Your task to perform on an android device: Open Google Chrome and click the shortcut for Amazon.com Image 0: 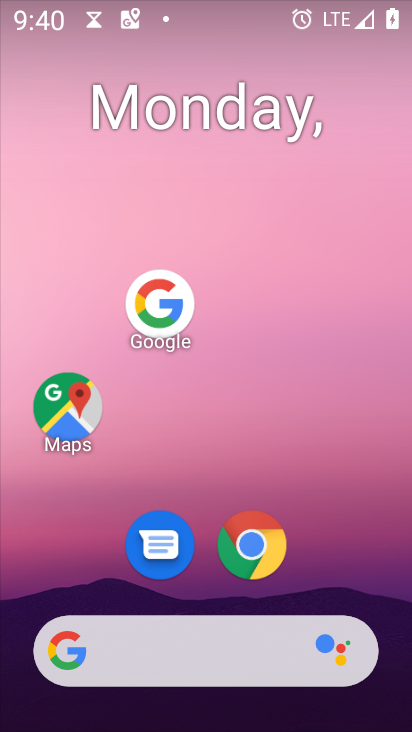
Step 0: press home button
Your task to perform on an android device: Open Google Chrome and click the shortcut for Amazon.com Image 1: 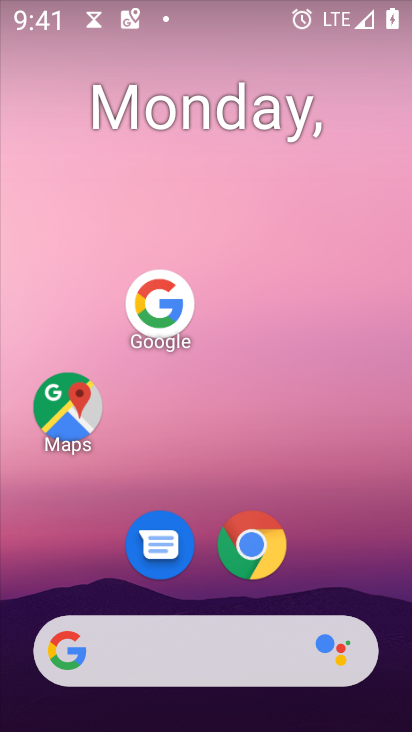
Step 1: click (261, 535)
Your task to perform on an android device: Open Google Chrome and click the shortcut for Amazon.com Image 2: 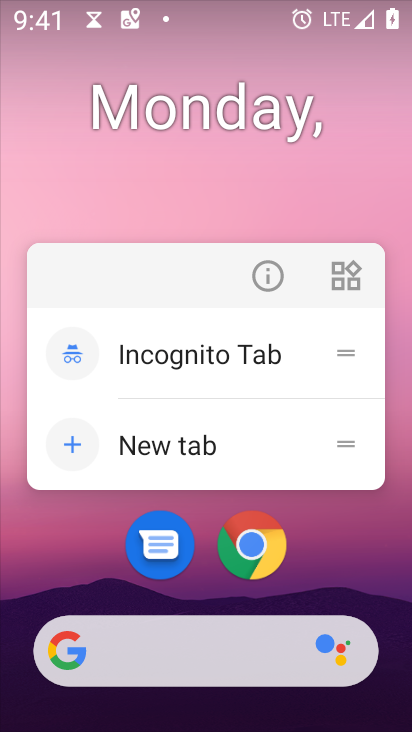
Step 2: click (249, 554)
Your task to perform on an android device: Open Google Chrome and click the shortcut for Amazon.com Image 3: 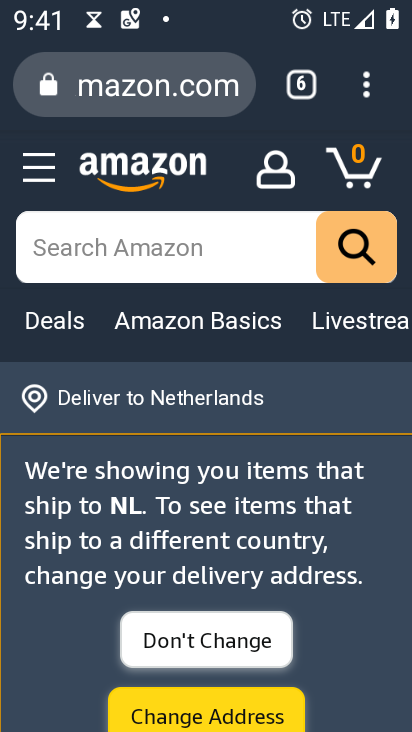
Step 3: task complete